Your task to perform on an android device: turn off notifications in google photos Image 0: 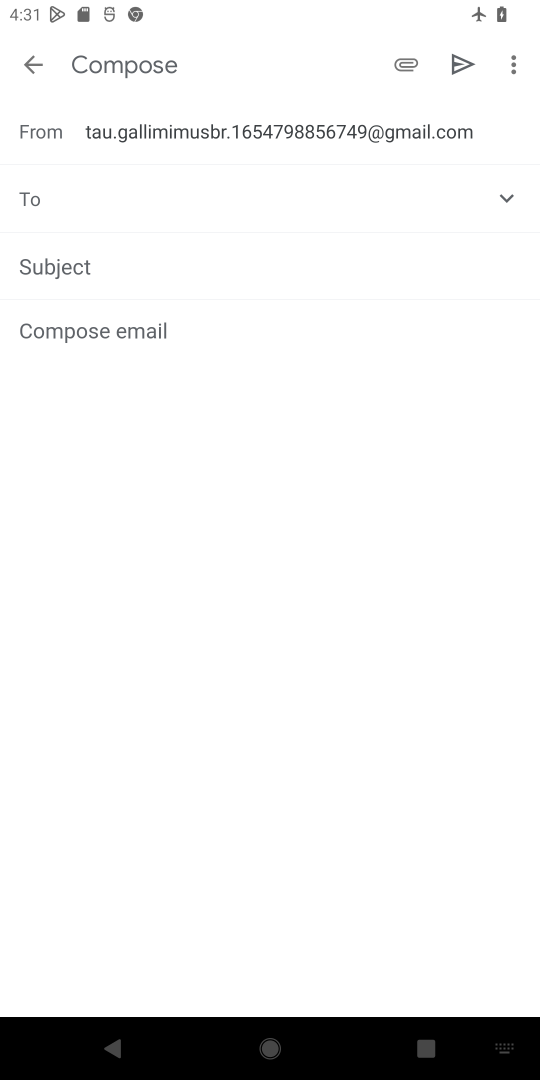
Step 0: press home button
Your task to perform on an android device: turn off notifications in google photos Image 1: 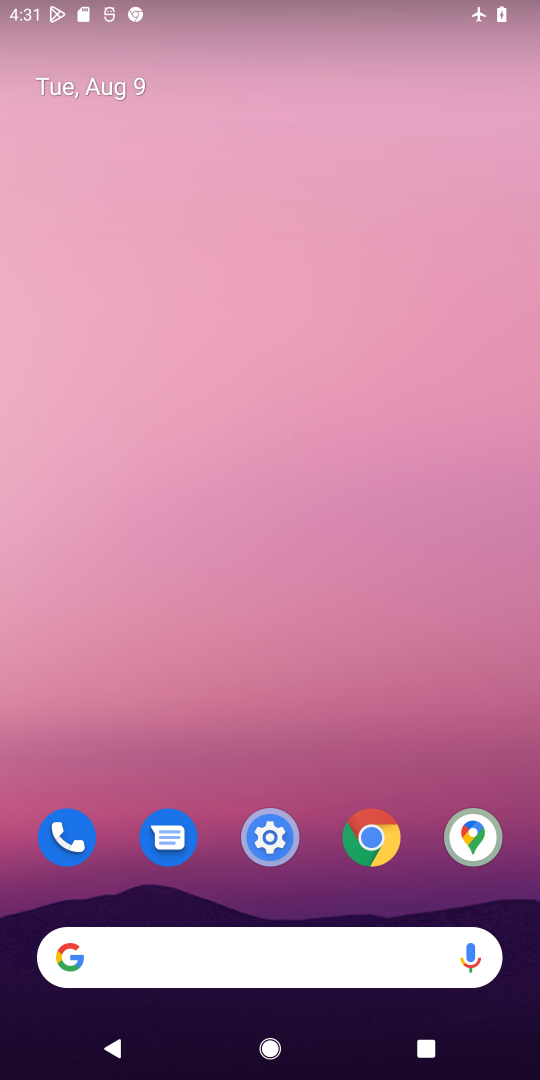
Step 1: drag from (244, 709) to (296, 116)
Your task to perform on an android device: turn off notifications in google photos Image 2: 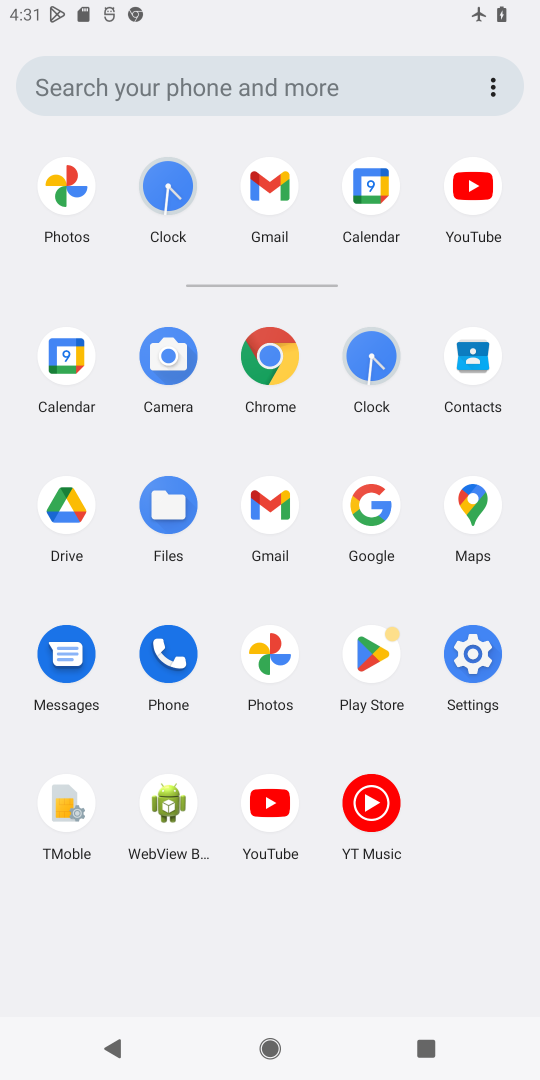
Step 2: click (457, 645)
Your task to perform on an android device: turn off notifications in google photos Image 3: 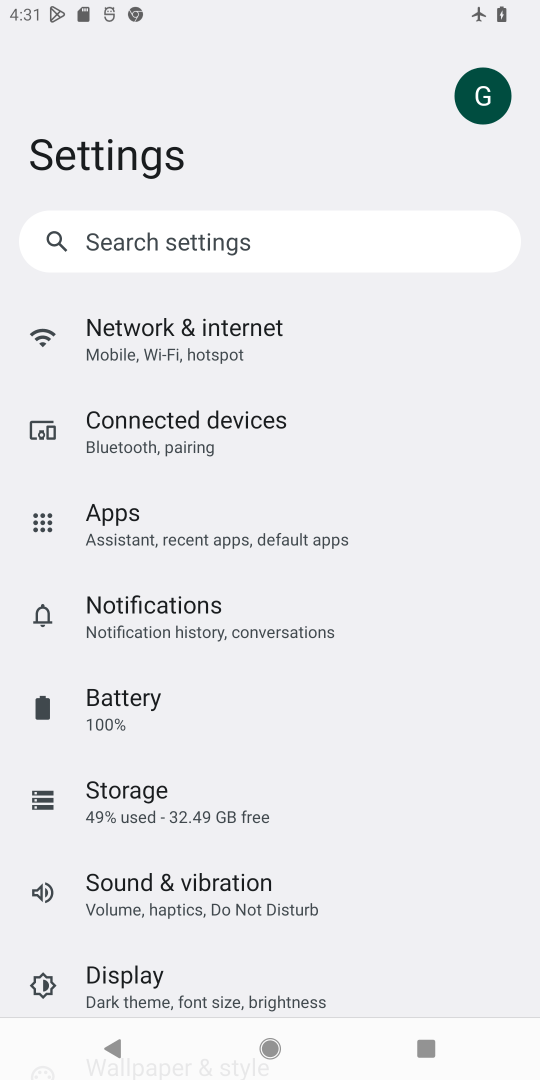
Step 3: press home button
Your task to perform on an android device: turn off notifications in google photos Image 4: 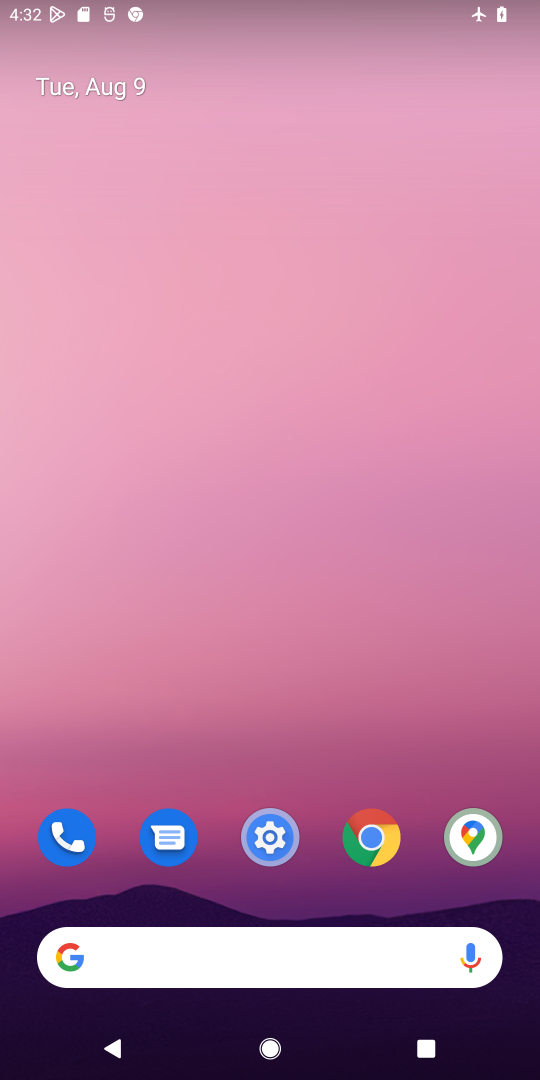
Step 4: drag from (219, 849) to (275, 142)
Your task to perform on an android device: turn off notifications in google photos Image 5: 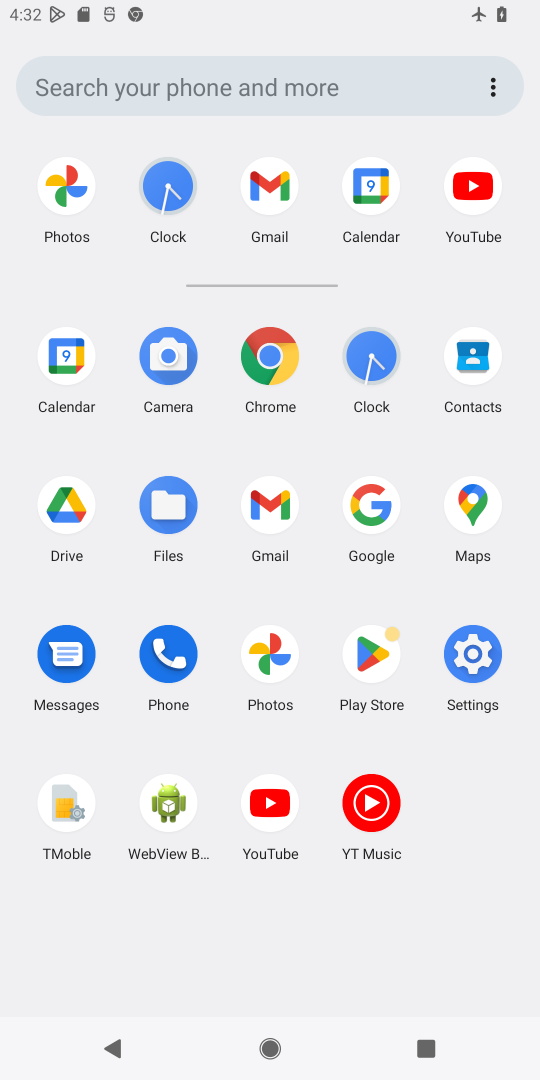
Step 5: click (279, 648)
Your task to perform on an android device: turn off notifications in google photos Image 6: 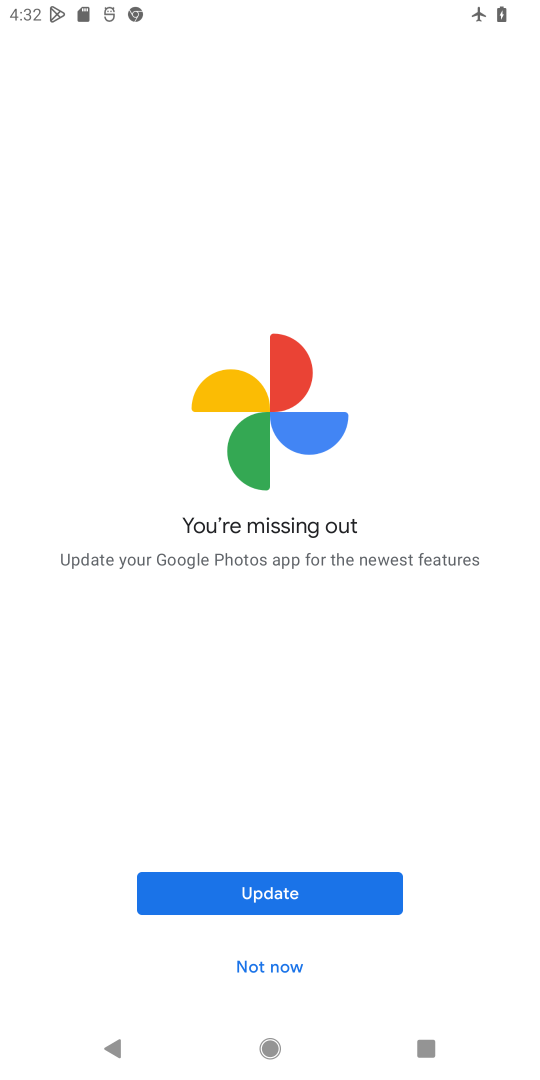
Step 6: click (256, 964)
Your task to perform on an android device: turn off notifications in google photos Image 7: 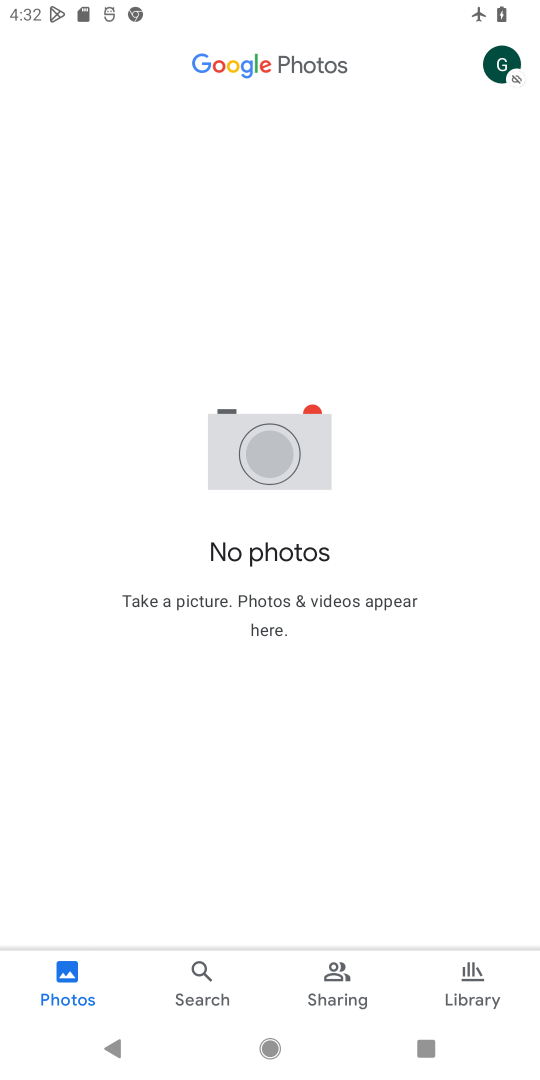
Step 7: click (510, 48)
Your task to perform on an android device: turn off notifications in google photos Image 8: 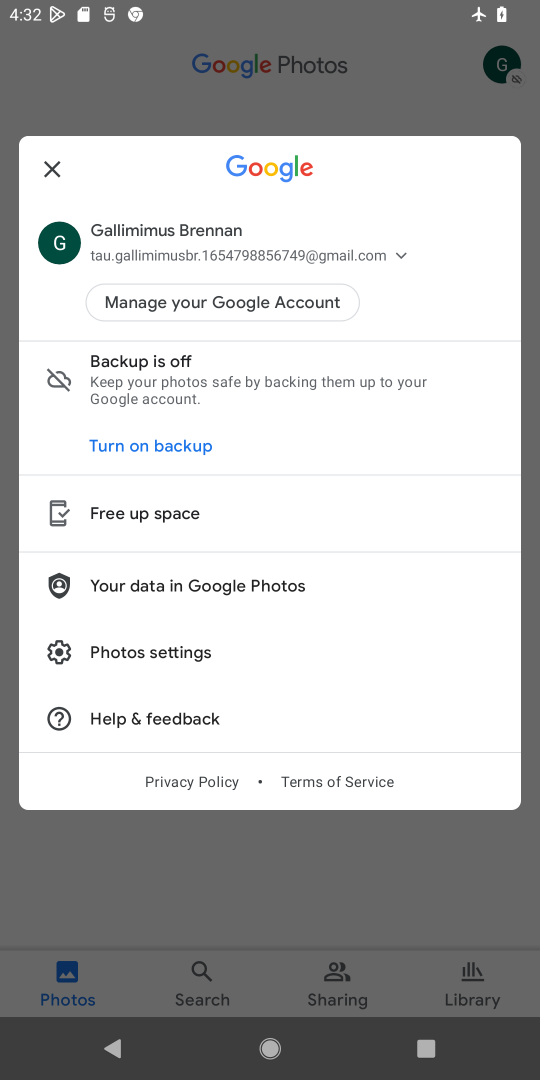
Step 8: click (157, 648)
Your task to perform on an android device: turn off notifications in google photos Image 9: 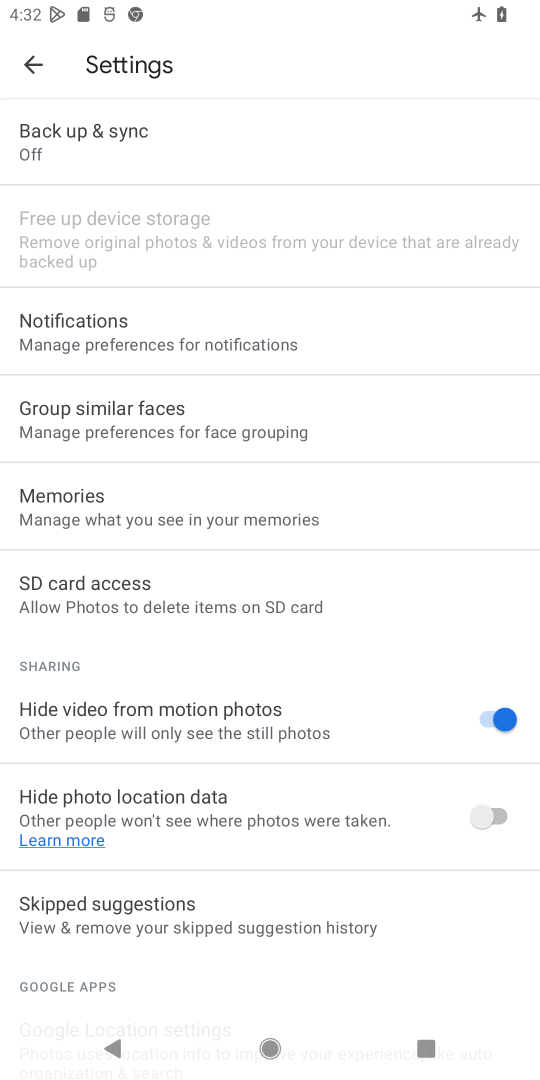
Step 9: click (173, 341)
Your task to perform on an android device: turn off notifications in google photos Image 10: 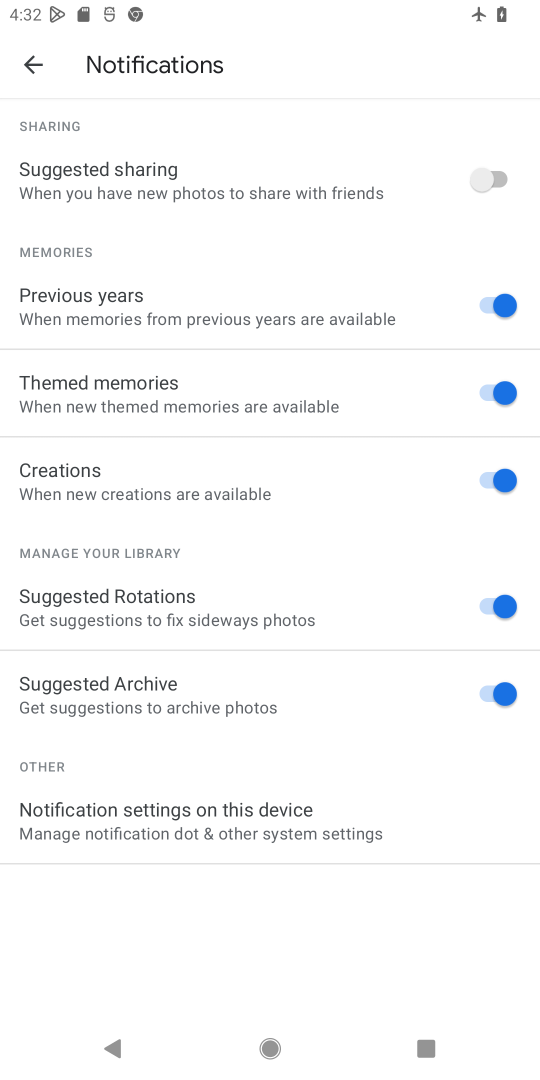
Step 10: click (263, 823)
Your task to perform on an android device: turn off notifications in google photos Image 11: 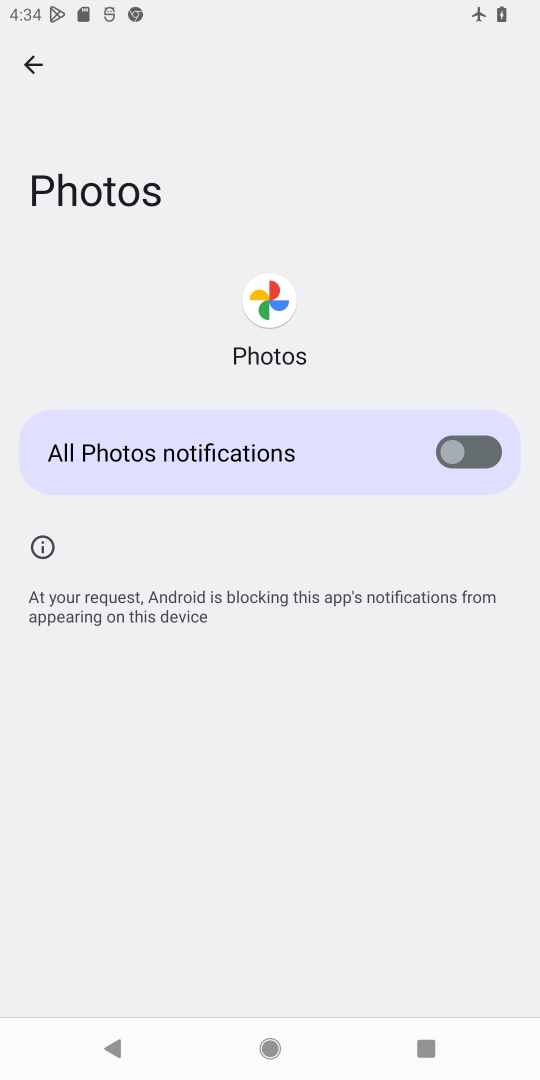
Step 11: task complete